Your task to perform on an android device: uninstall "Skype" Image 0: 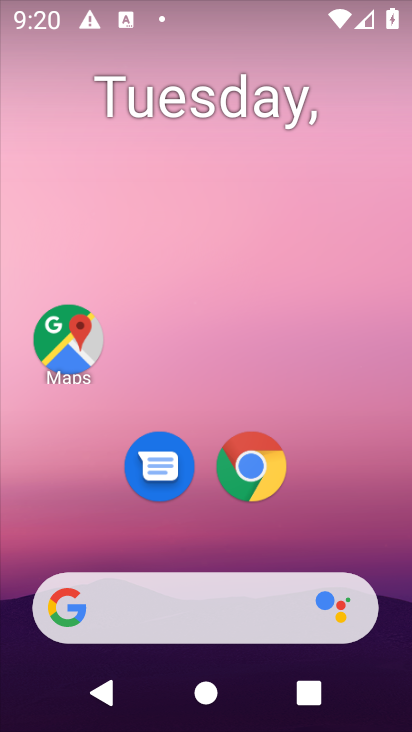
Step 0: drag from (196, 537) to (265, 4)
Your task to perform on an android device: uninstall "Skype" Image 1: 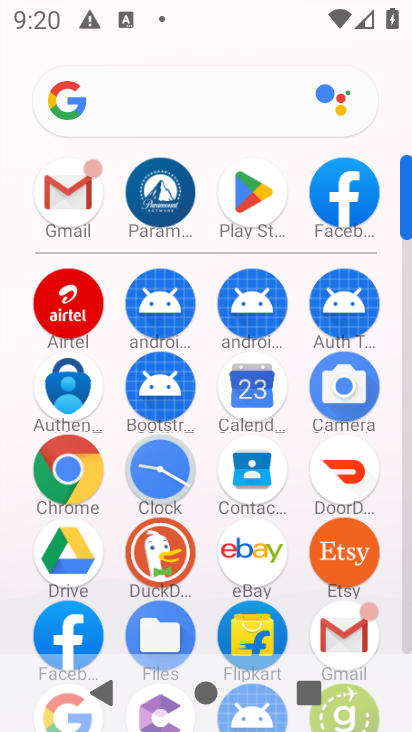
Step 1: click (259, 188)
Your task to perform on an android device: uninstall "Skype" Image 2: 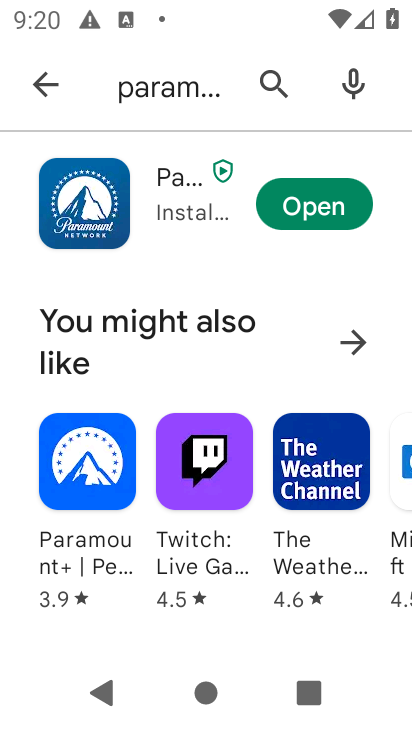
Step 2: click (280, 78)
Your task to perform on an android device: uninstall "Skype" Image 3: 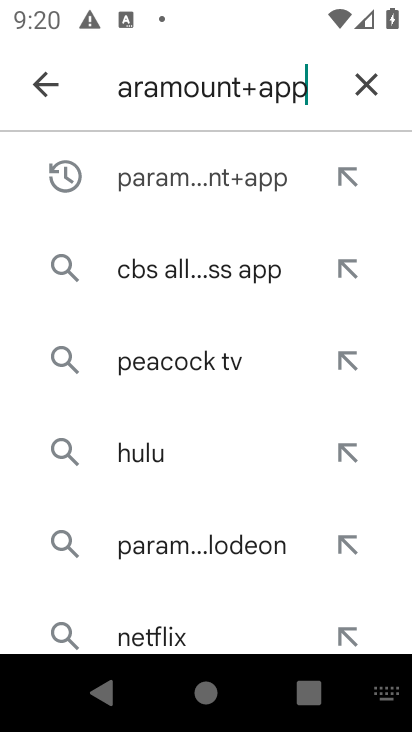
Step 3: click (369, 89)
Your task to perform on an android device: uninstall "Skype" Image 4: 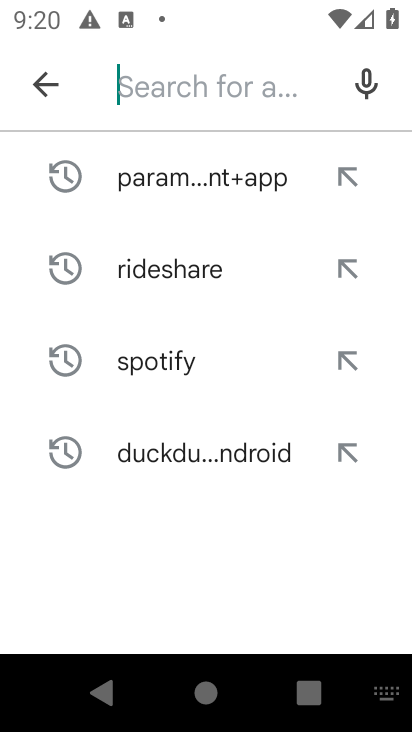
Step 4: click (153, 100)
Your task to perform on an android device: uninstall "Skype" Image 5: 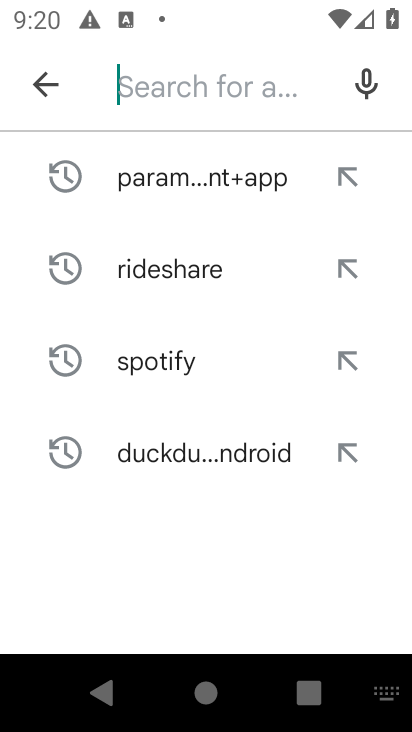
Step 5: type "Skype"
Your task to perform on an android device: uninstall "Skype" Image 6: 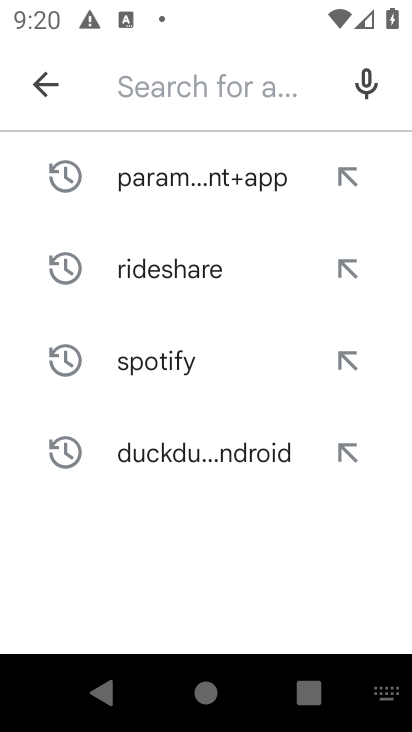
Step 6: click (224, 579)
Your task to perform on an android device: uninstall "Skype" Image 7: 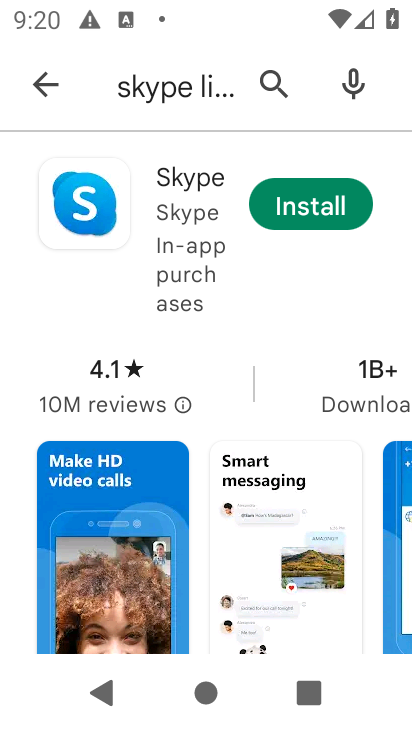
Step 7: click (178, 230)
Your task to perform on an android device: uninstall "Skype" Image 8: 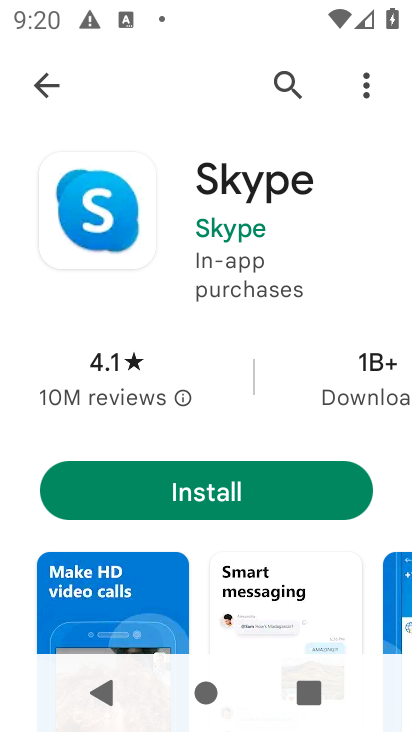
Step 8: task complete